Your task to perform on an android device: remove spam from my inbox in the gmail app Image 0: 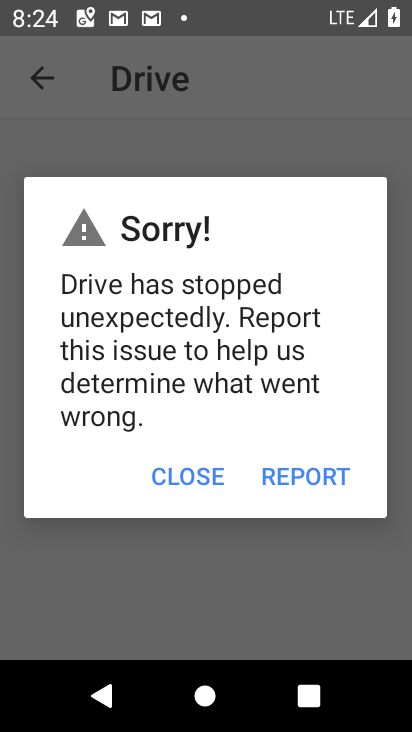
Step 0: press home button
Your task to perform on an android device: remove spam from my inbox in the gmail app Image 1: 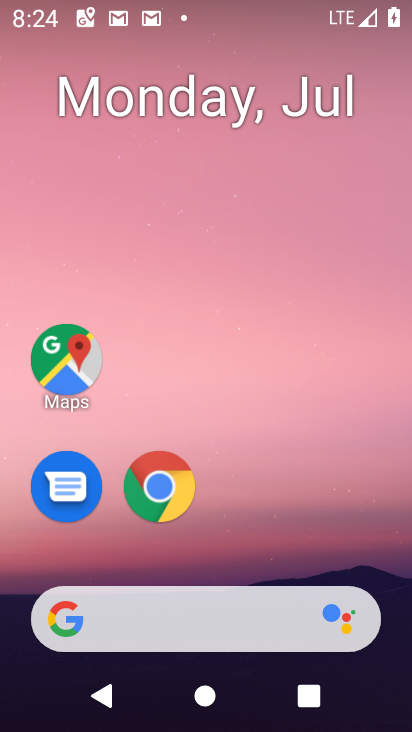
Step 1: drag from (328, 540) to (354, 200)
Your task to perform on an android device: remove spam from my inbox in the gmail app Image 2: 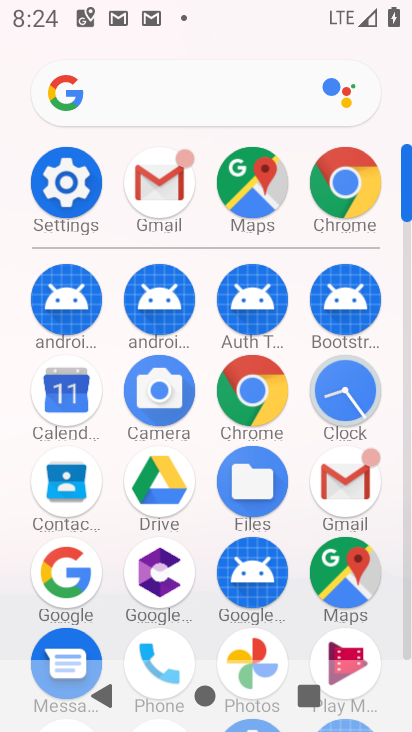
Step 2: click (361, 474)
Your task to perform on an android device: remove spam from my inbox in the gmail app Image 3: 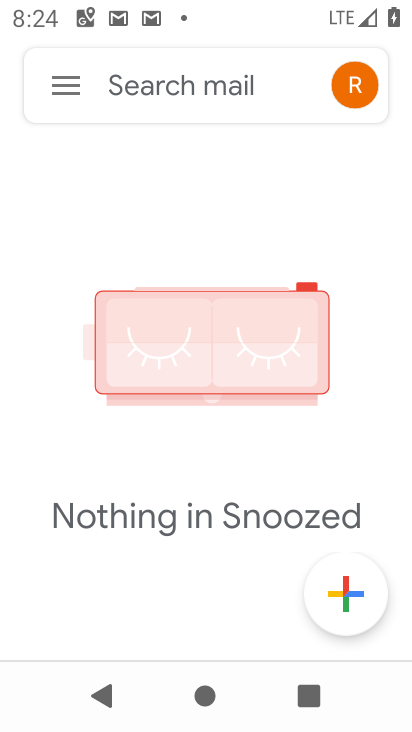
Step 3: click (61, 89)
Your task to perform on an android device: remove spam from my inbox in the gmail app Image 4: 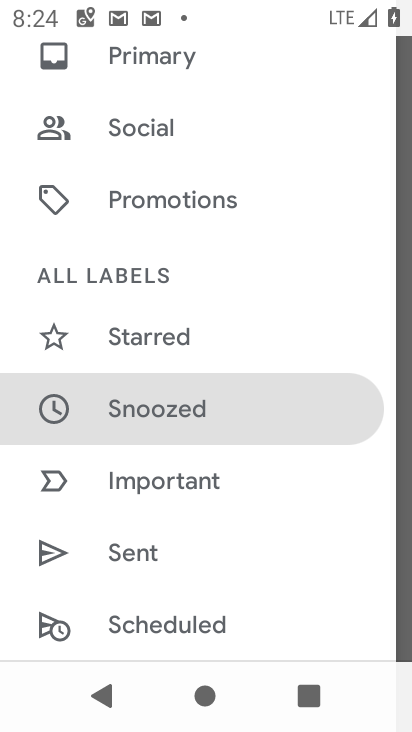
Step 4: drag from (310, 523) to (295, 440)
Your task to perform on an android device: remove spam from my inbox in the gmail app Image 5: 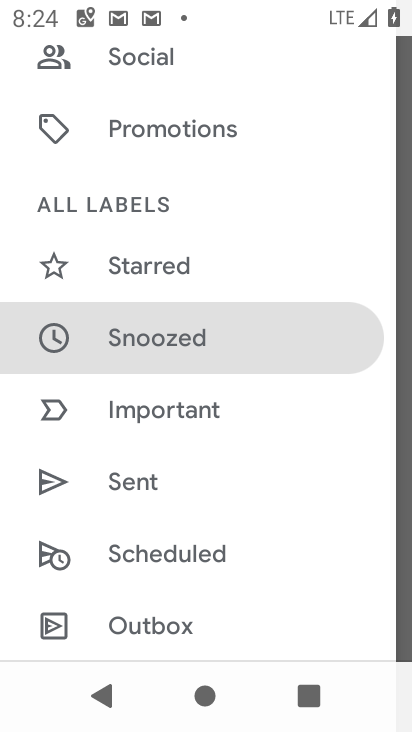
Step 5: drag from (287, 526) to (293, 408)
Your task to perform on an android device: remove spam from my inbox in the gmail app Image 6: 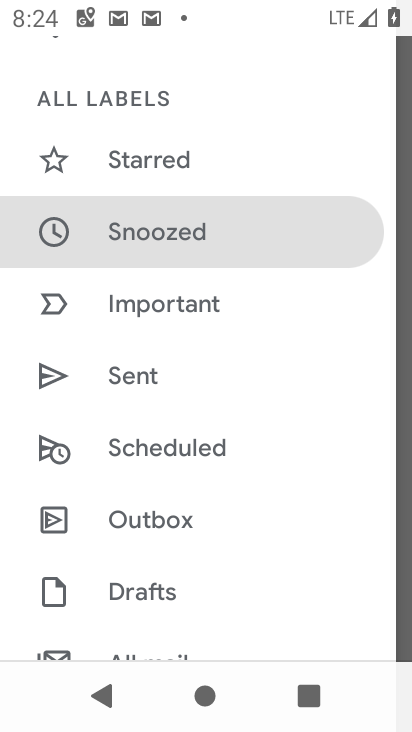
Step 6: drag from (294, 515) to (319, 387)
Your task to perform on an android device: remove spam from my inbox in the gmail app Image 7: 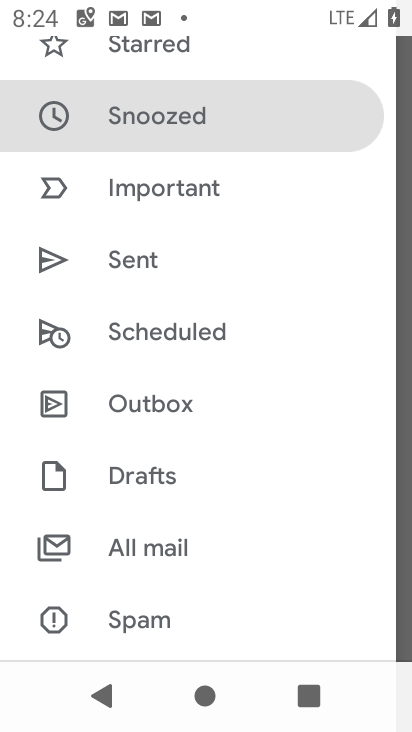
Step 7: drag from (315, 565) to (328, 280)
Your task to perform on an android device: remove spam from my inbox in the gmail app Image 8: 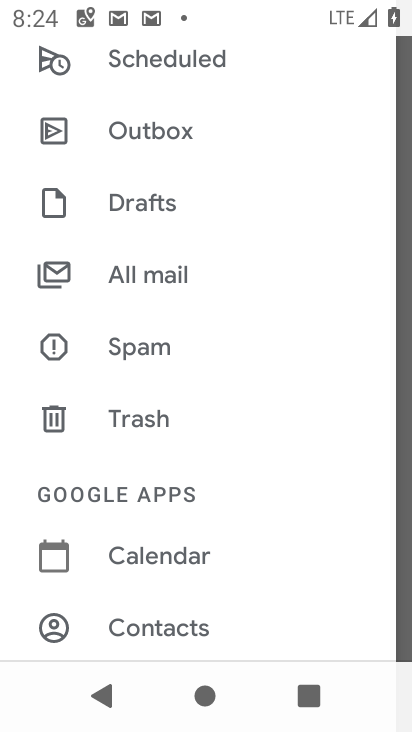
Step 8: click (222, 342)
Your task to perform on an android device: remove spam from my inbox in the gmail app Image 9: 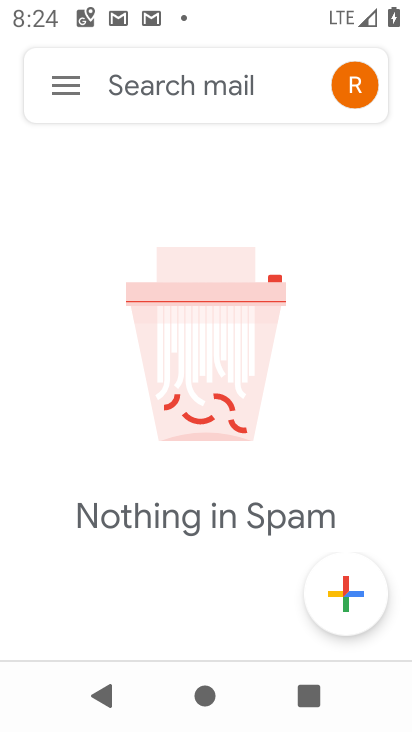
Step 9: task complete